Your task to perform on an android device: read, delete, or share a saved page in the chrome app Image 0: 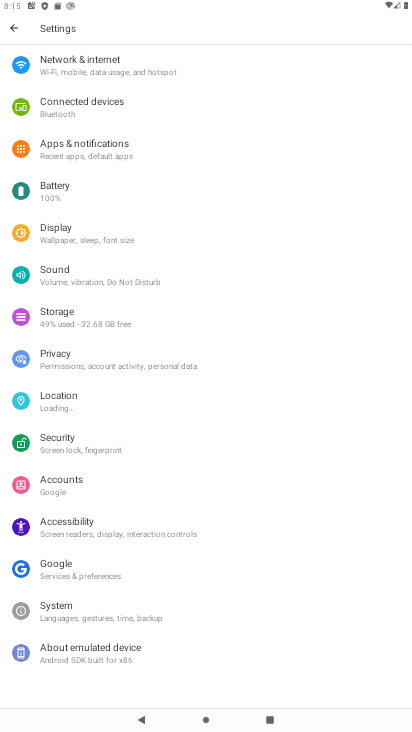
Step 0: press home button
Your task to perform on an android device: read, delete, or share a saved page in the chrome app Image 1: 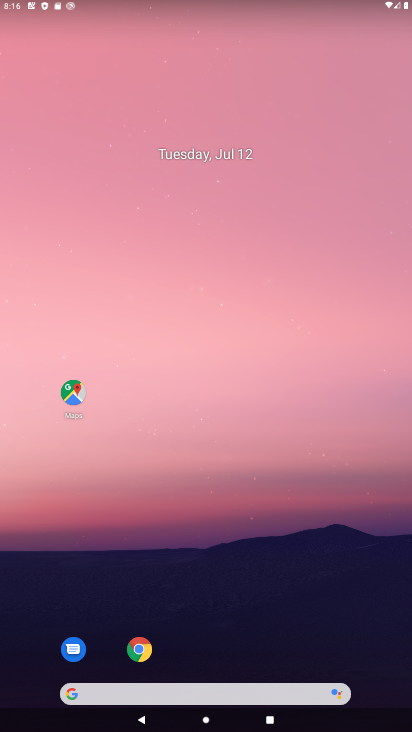
Step 1: click (136, 648)
Your task to perform on an android device: read, delete, or share a saved page in the chrome app Image 2: 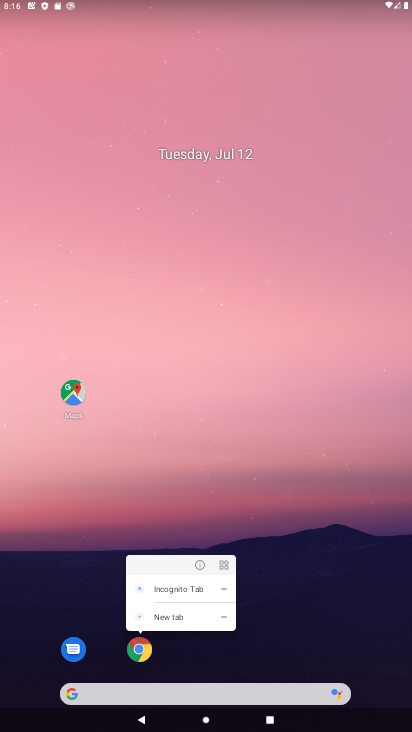
Step 2: click (140, 649)
Your task to perform on an android device: read, delete, or share a saved page in the chrome app Image 3: 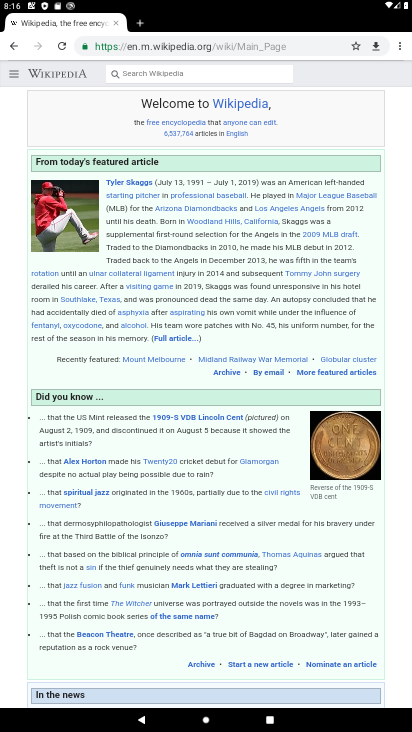
Step 3: click (395, 47)
Your task to perform on an android device: read, delete, or share a saved page in the chrome app Image 4: 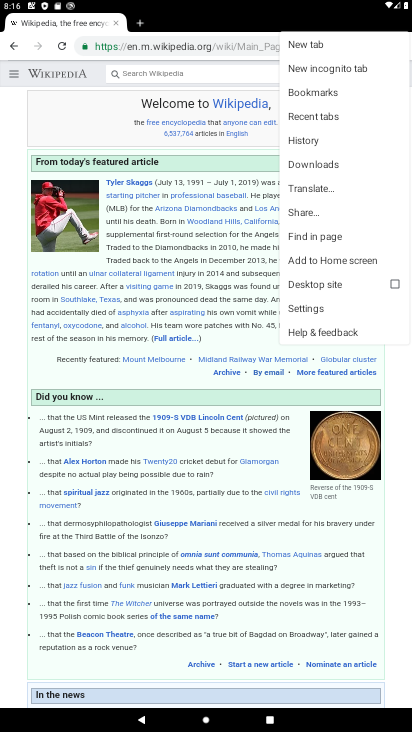
Step 4: click (319, 168)
Your task to perform on an android device: read, delete, or share a saved page in the chrome app Image 5: 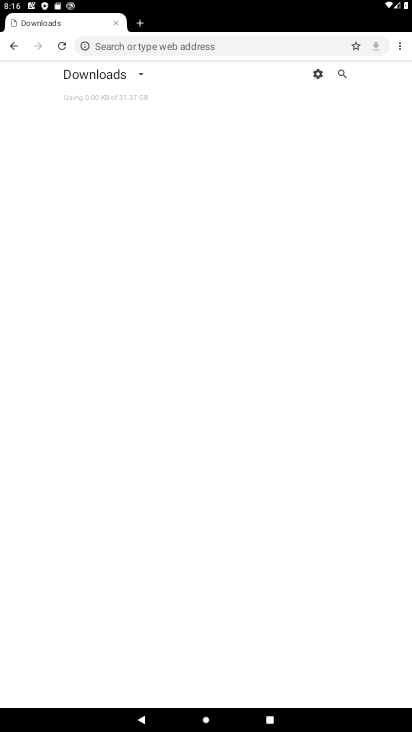
Step 5: task complete